Your task to perform on an android device: Go to Wikipedia Image 0: 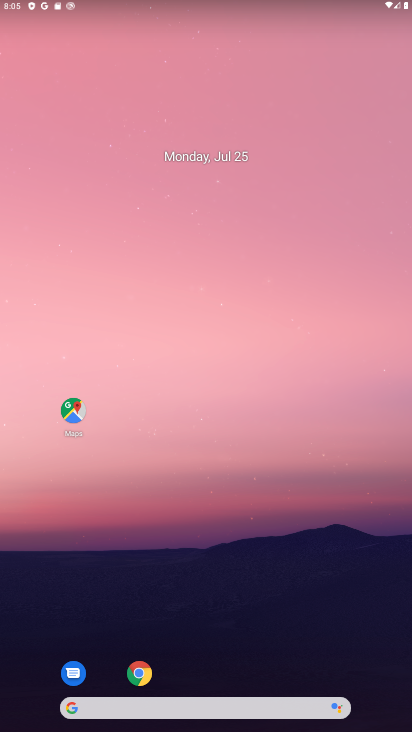
Step 0: drag from (224, 683) to (139, 19)
Your task to perform on an android device: Go to Wikipedia Image 1: 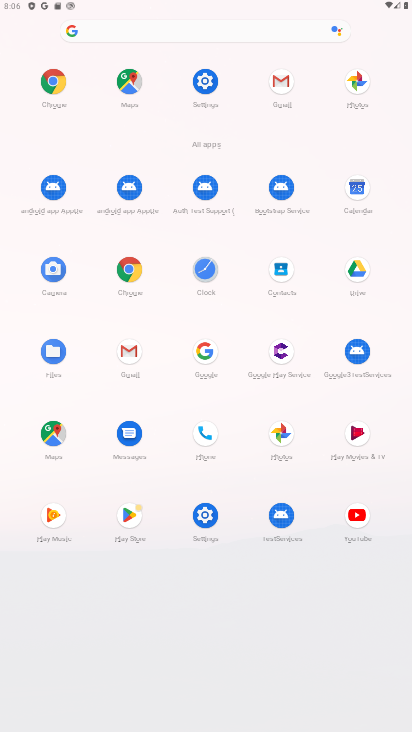
Step 1: click (61, 85)
Your task to perform on an android device: Go to Wikipedia Image 2: 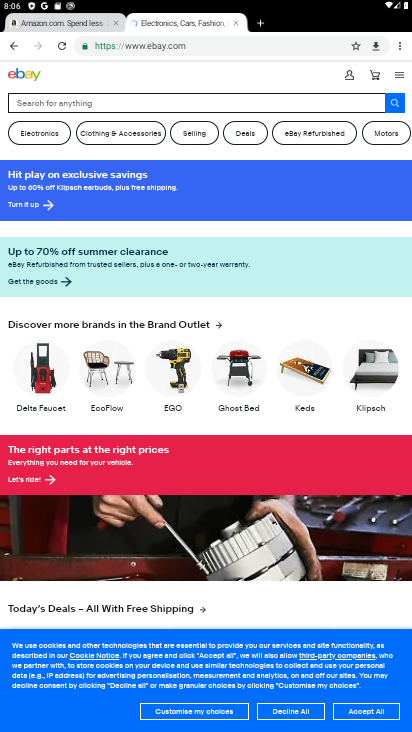
Step 2: click (258, 20)
Your task to perform on an android device: Go to Wikipedia Image 3: 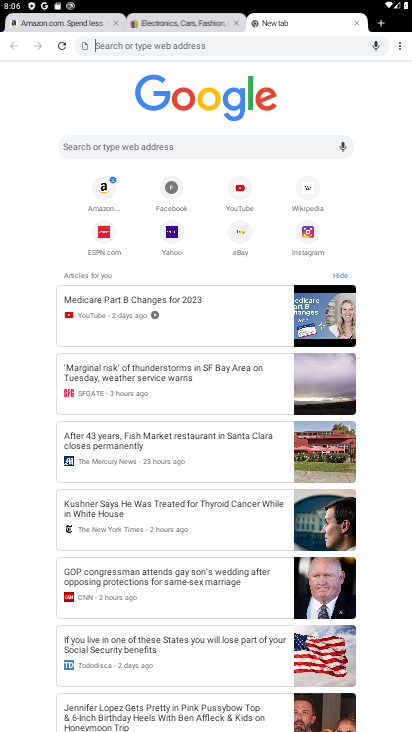
Step 3: click (289, 201)
Your task to perform on an android device: Go to Wikipedia Image 4: 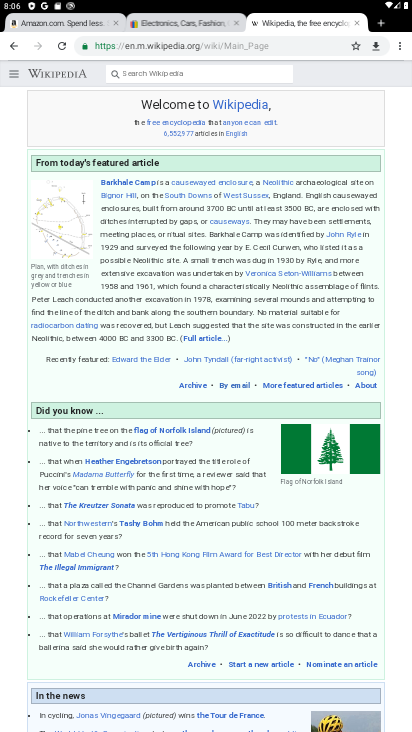
Step 4: task complete